Your task to perform on an android device: Open Chrome and go to settings Image 0: 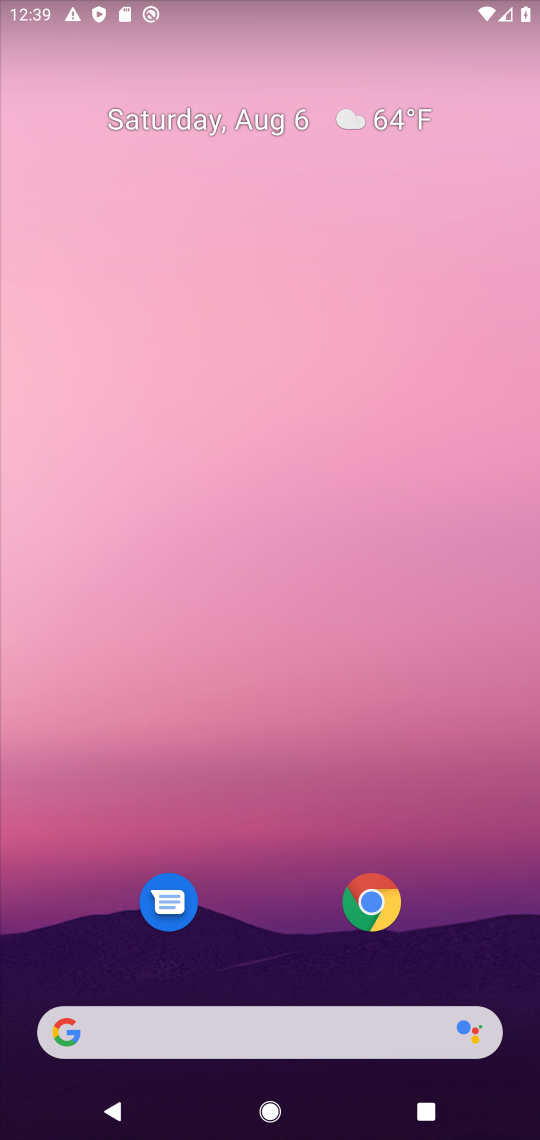
Step 0: click (428, 761)
Your task to perform on an android device: Open Chrome and go to settings Image 1: 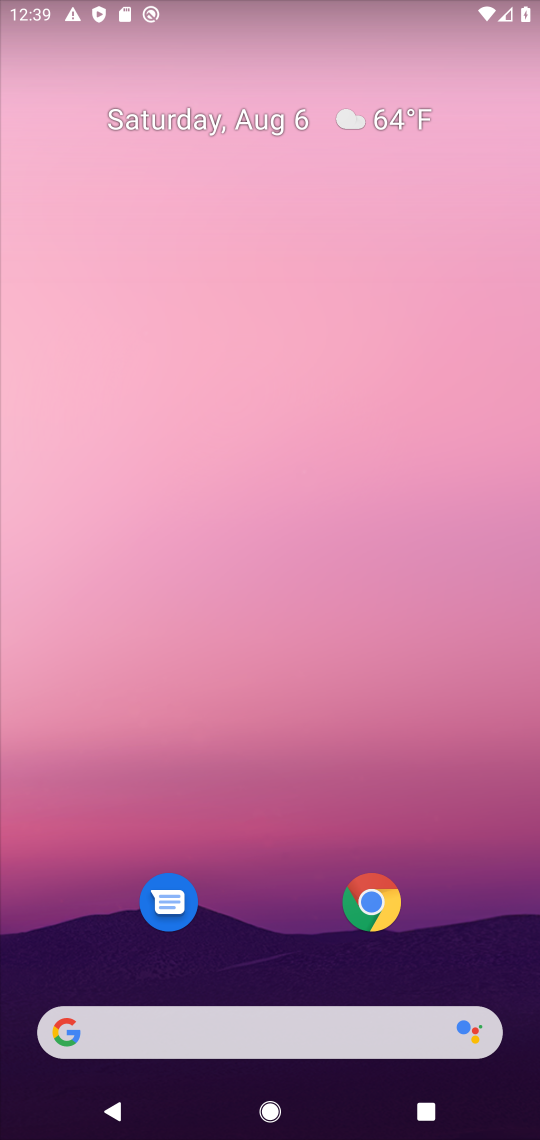
Step 1: click (376, 905)
Your task to perform on an android device: Open Chrome and go to settings Image 2: 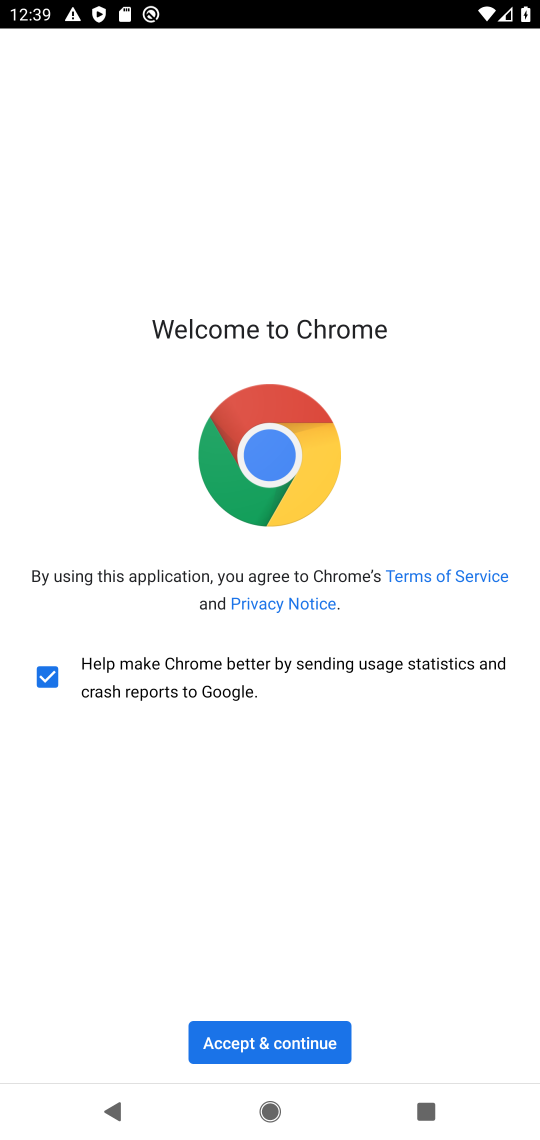
Step 2: click (227, 1030)
Your task to perform on an android device: Open Chrome and go to settings Image 3: 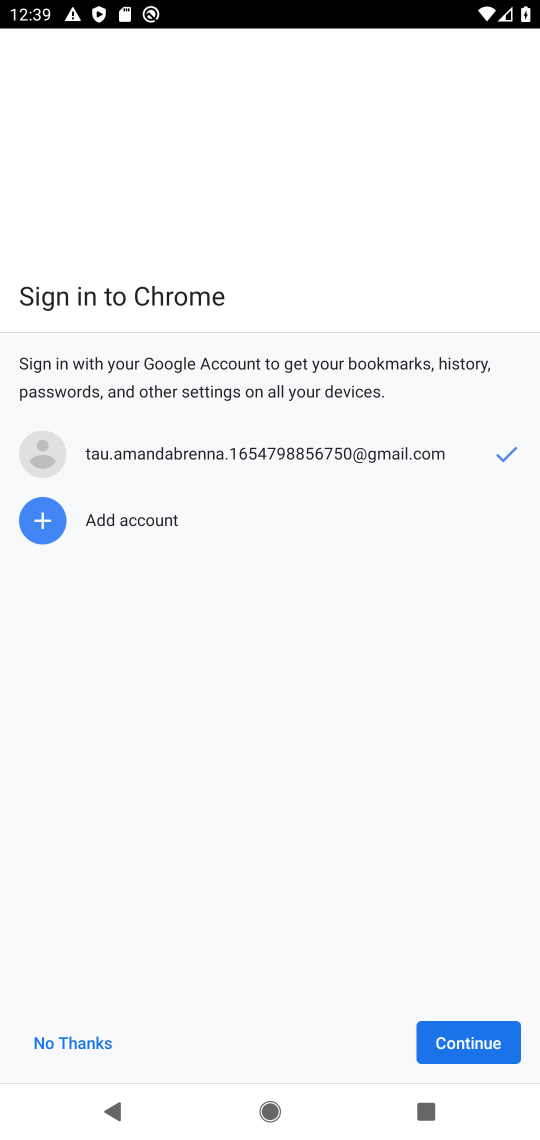
Step 3: click (459, 1042)
Your task to perform on an android device: Open Chrome and go to settings Image 4: 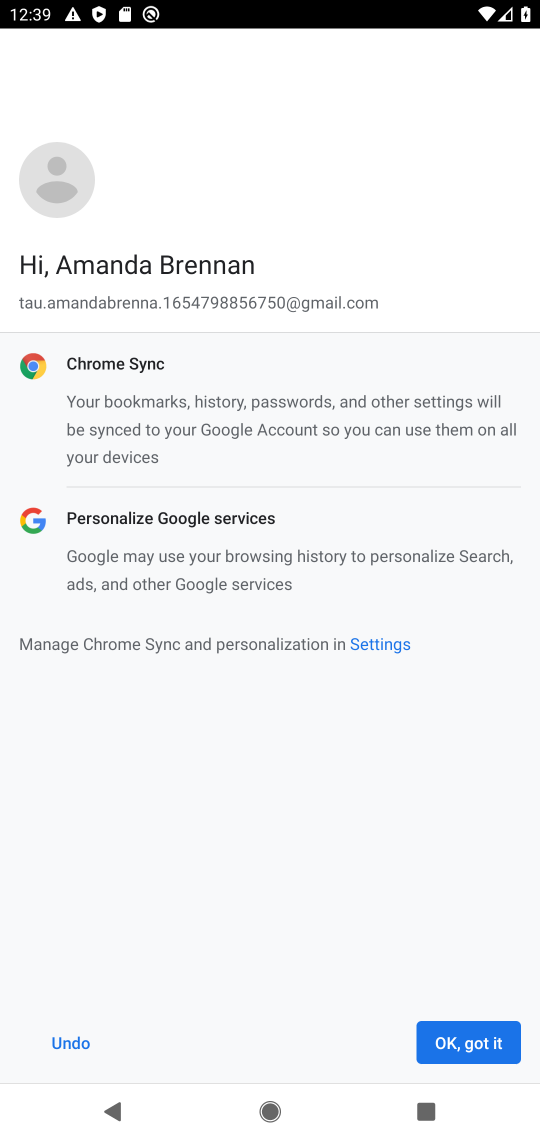
Step 4: click (476, 1048)
Your task to perform on an android device: Open Chrome and go to settings Image 5: 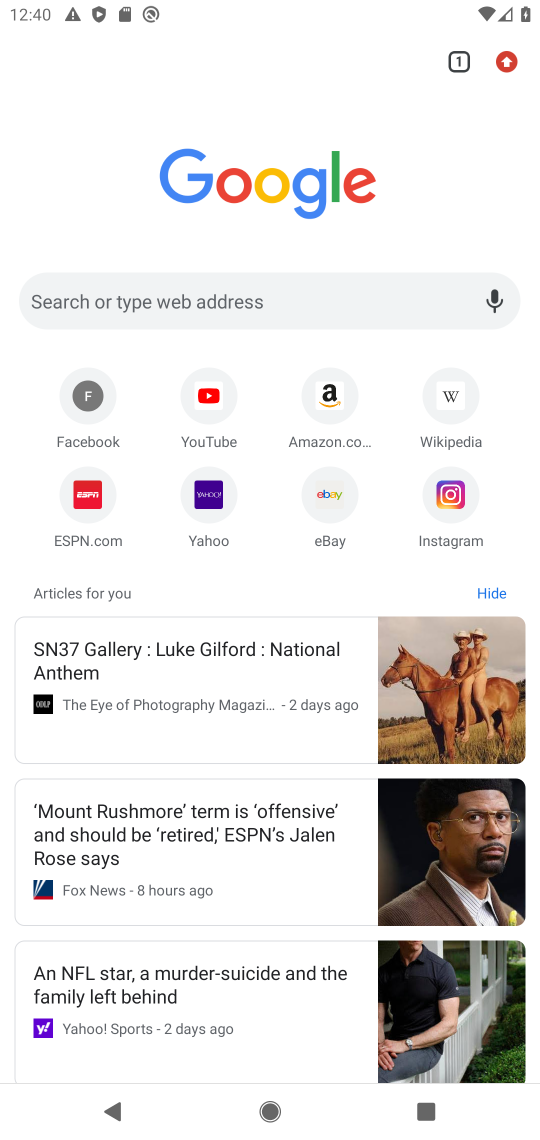
Step 5: click (504, 55)
Your task to perform on an android device: Open Chrome and go to settings Image 6: 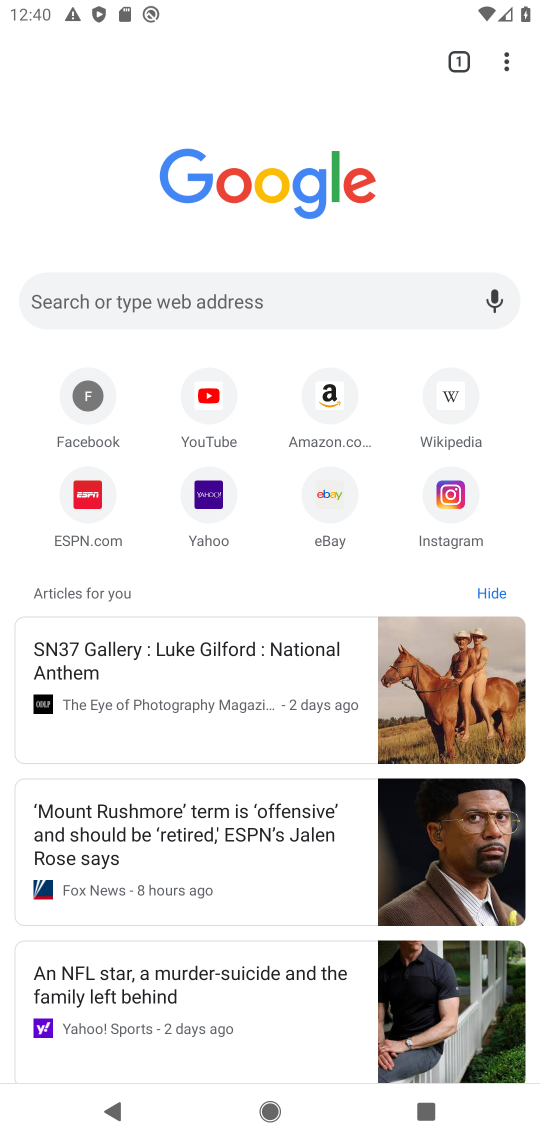
Step 6: click (512, 56)
Your task to perform on an android device: Open Chrome and go to settings Image 7: 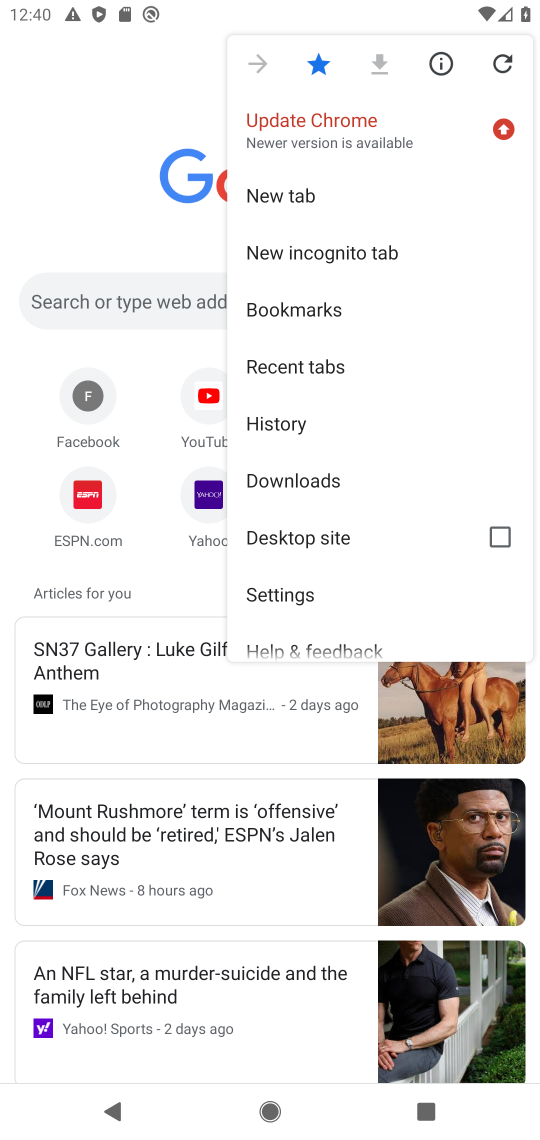
Step 7: click (291, 591)
Your task to perform on an android device: Open Chrome and go to settings Image 8: 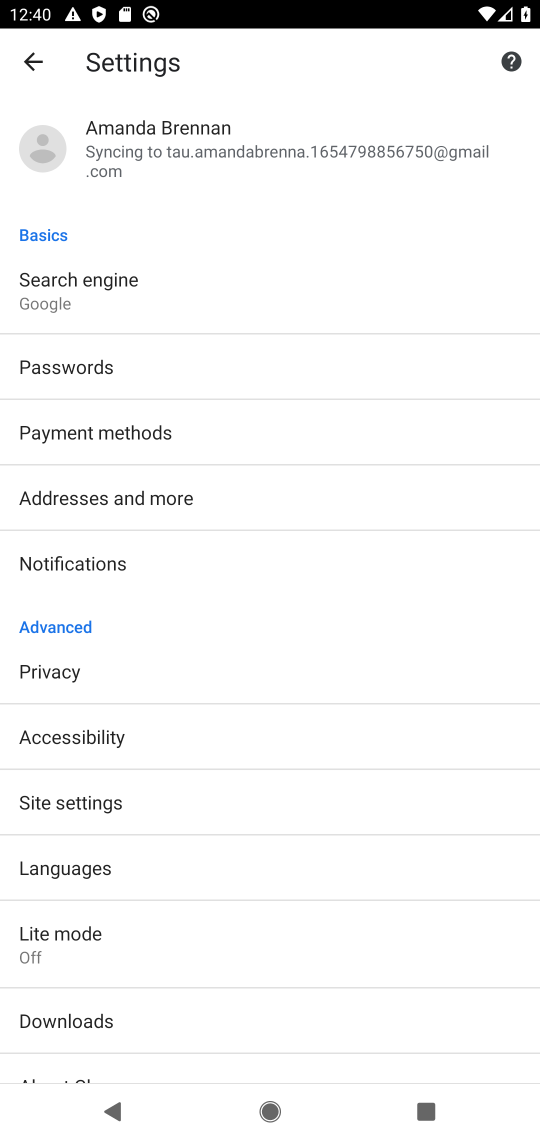
Step 8: task complete